Your task to perform on an android device: Go to Amazon Image 0: 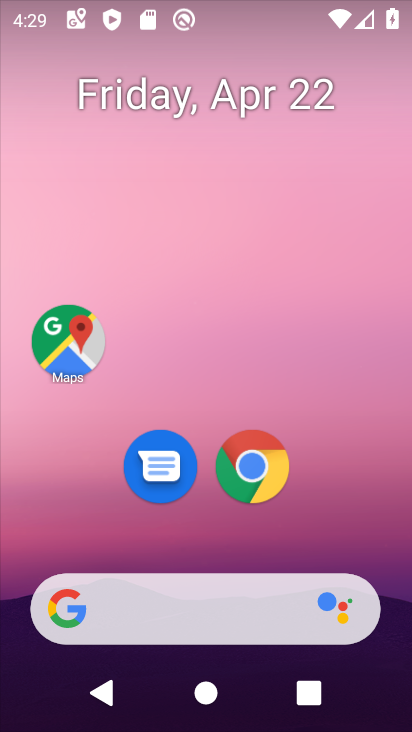
Step 0: drag from (367, 536) to (291, 281)
Your task to perform on an android device: Go to Amazon Image 1: 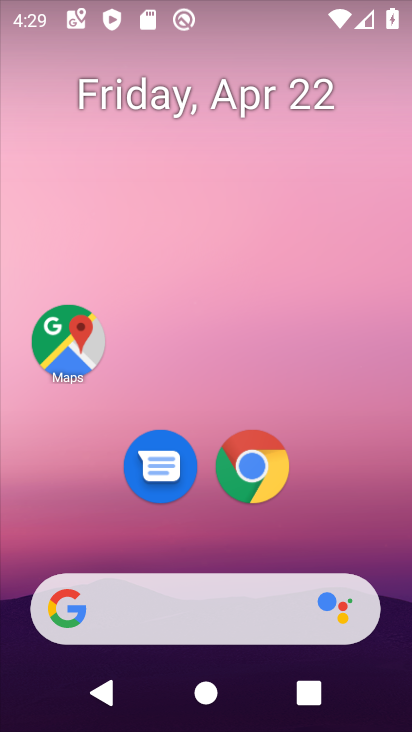
Step 1: click (249, 478)
Your task to perform on an android device: Go to Amazon Image 2: 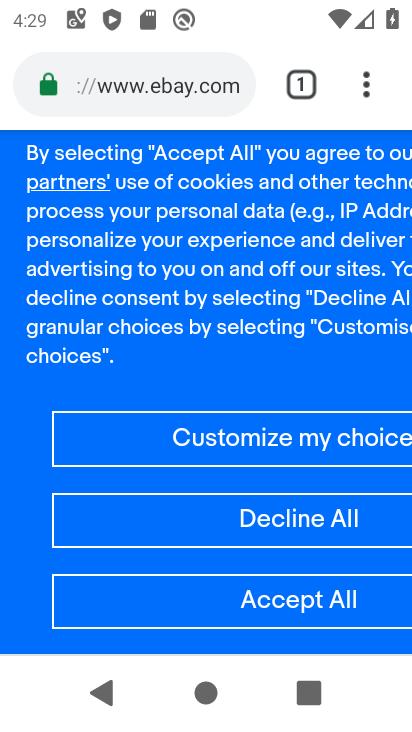
Step 2: click (306, 86)
Your task to perform on an android device: Go to Amazon Image 3: 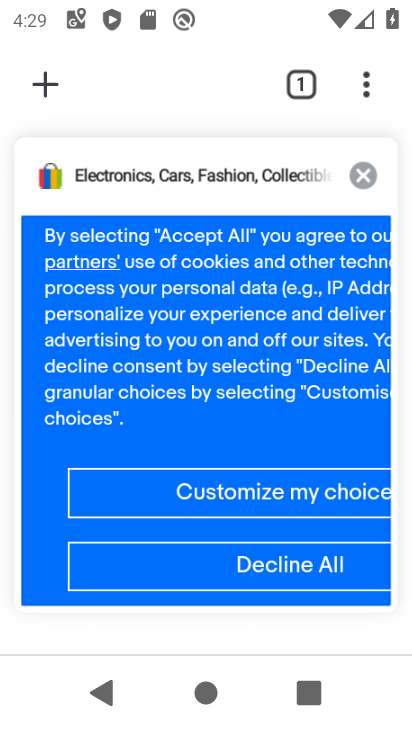
Step 3: click (43, 82)
Your task to perform on an android device: Go to Amazon Image 4: 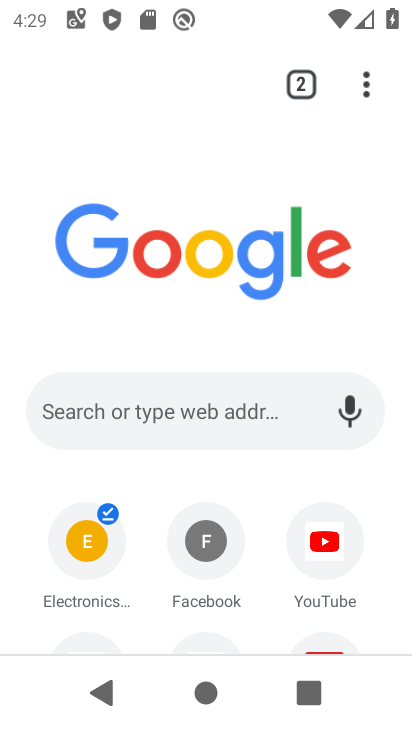
Step 4: drag from (402, 544) to (365, 170)
Your task to perform on an android device: Go to Amazon Image 5: 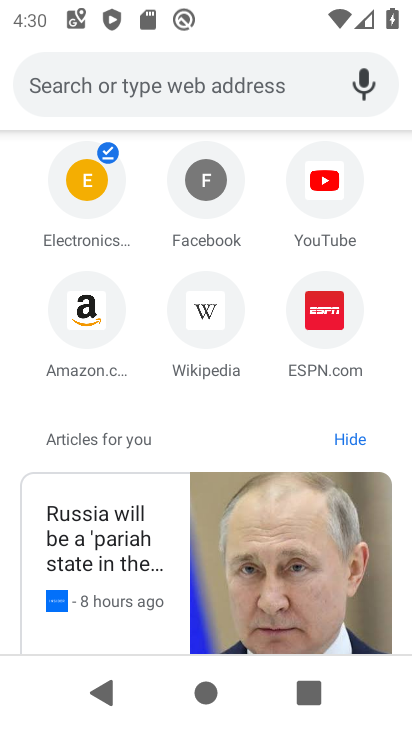
Step 5: click (83, 312)
Your task to perform on an android device: Go to Amazon Image 6: 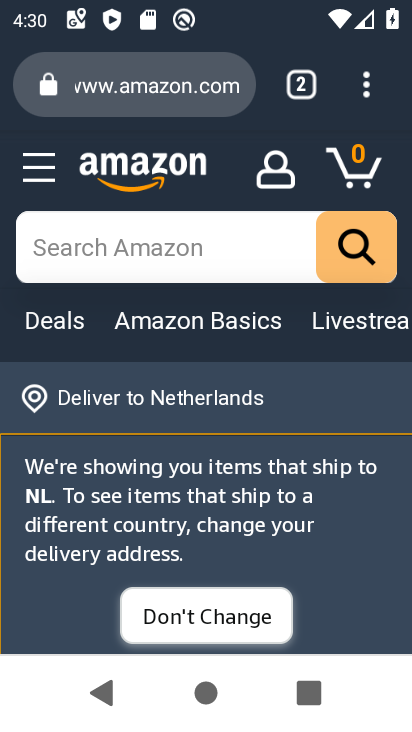
Step 6: task complete